Your task to perform on an android device: Search for Mexican restaurants on Maps Image 0: 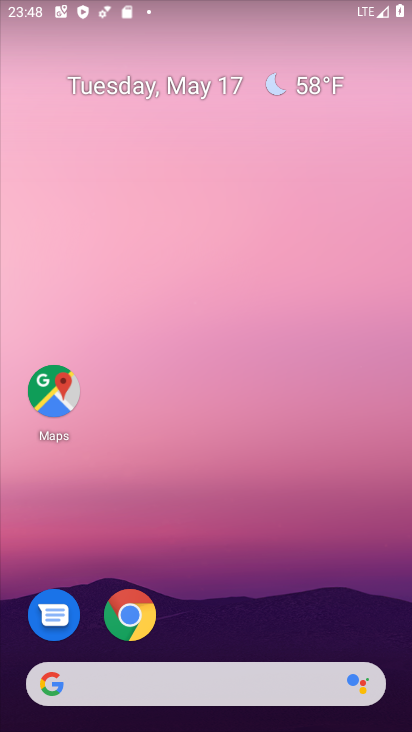
Step 0: click (59, 396)
Your task to perform on an android device: Search for Mexican restaurants on Maps Image 1: 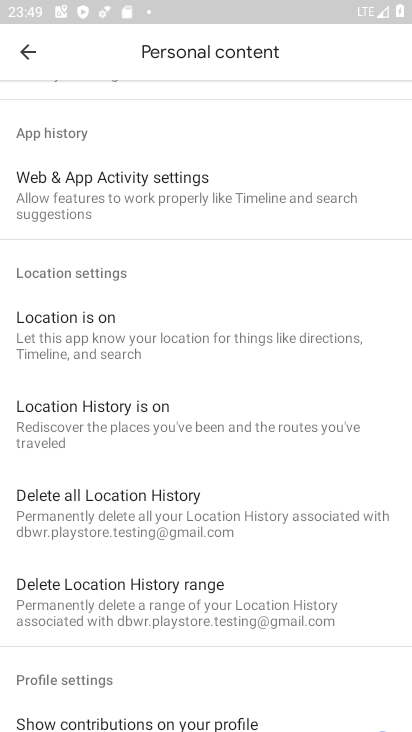
Step 1: click (34, 50)
Your task to perform on an android device: Search for Mexican restaurants on Maps Image 2: 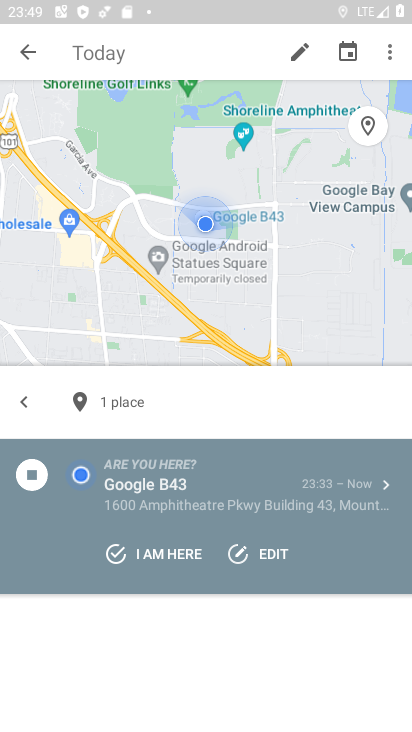
Step 2: click (13, 39)
Your task to perform on an android device: Search for Mexican restaurants on Maps Image 3: 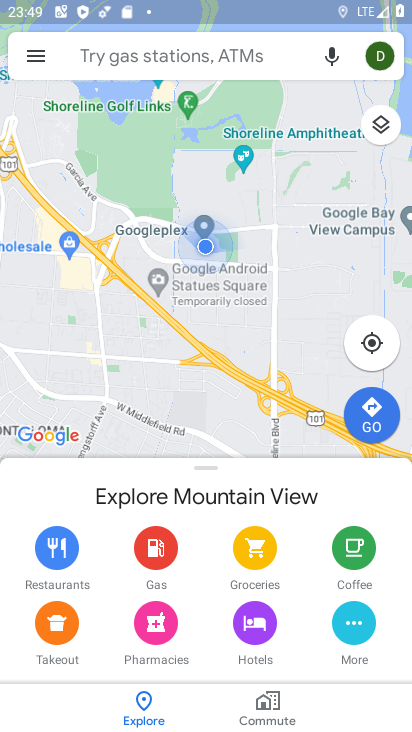
Step 3: click (138, 60)
Your task to perform on an android device: Search for Mexican restaurants on Maps Image 4: 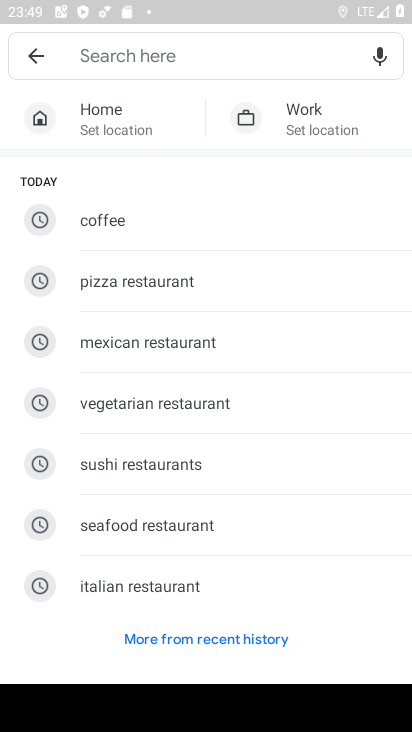
Step 4: type "Mexican restaurants"
Your task to perform on an android device: Search for Mexican restaurants on Maps Image 5: 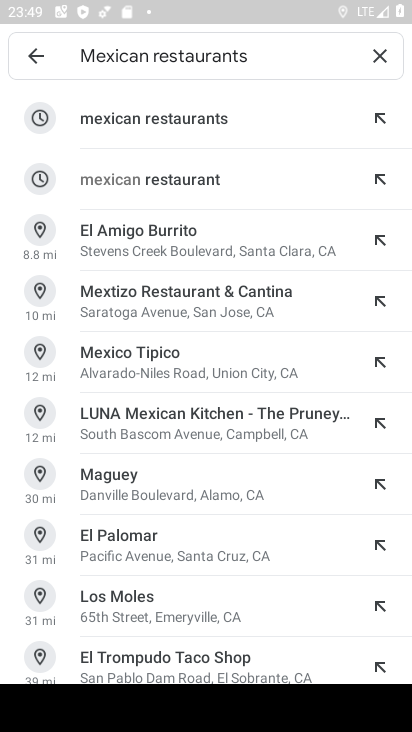
Step 5: click (124, 115)
Your task to perform on an android device: Search for Mexican restaurants on Maps Image 6: 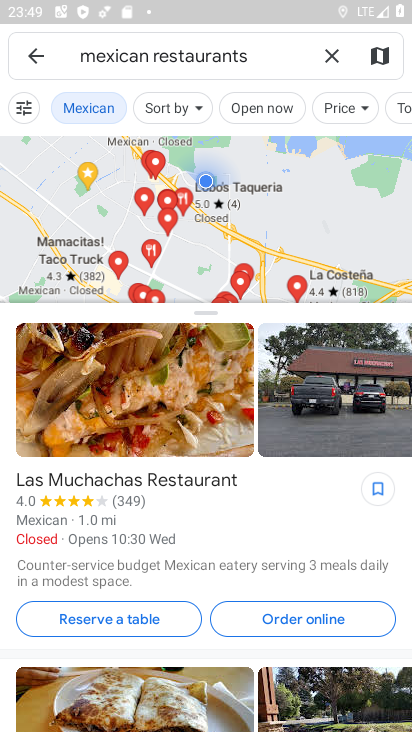
Step 6: task complete